Your task to perform on an android device: Open Android settings Image 0: 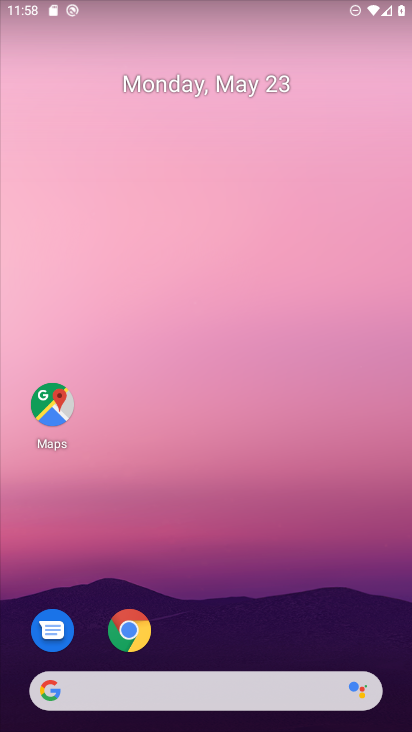
Step 0: drag from (245, 177) to (254, 134)
Your task to perform on an android device: Open Android settings Image 1: 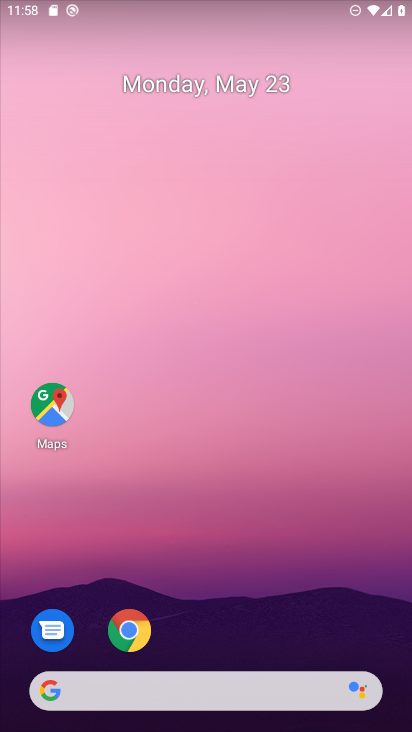
Step 1: drag from (206, 621) to (216, 179)
Your task to perform on an android device: Open Android settings Image 2: 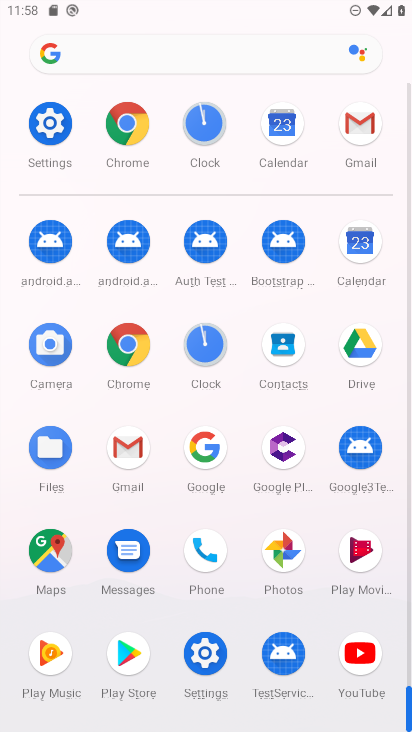
Step 2: click (48, 126)
Your task to perform on an android device: Open Android settings Image 3: 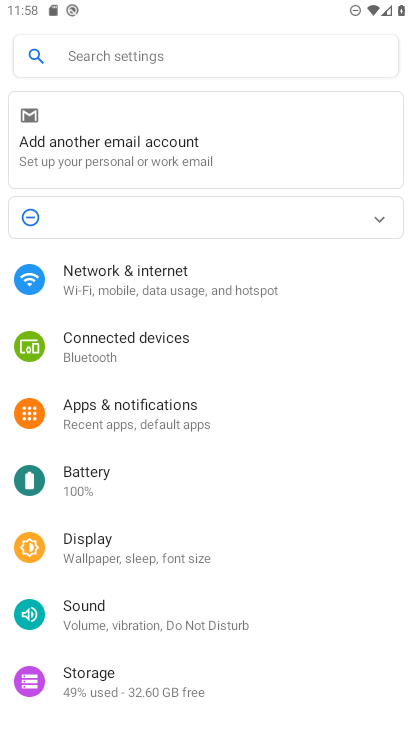
Step 3: drag from (218, 653) to (259, 263)
Your task to perform on an android device: Open Android settings Image 4: 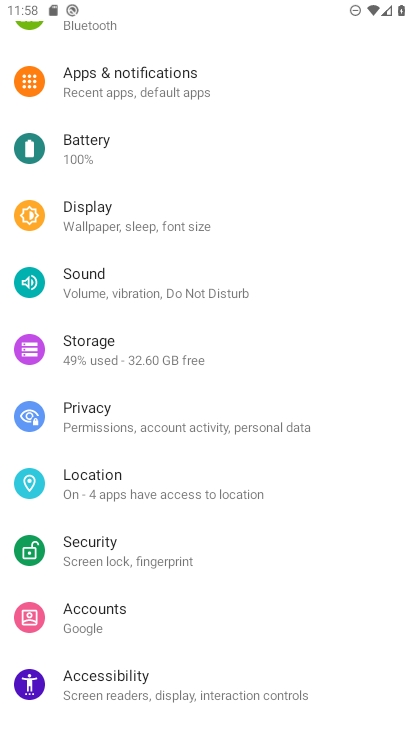
Step 4: drag from (201, 608) to (237, 301)
Your task to perform on an android device: Open Android settings Image 5: 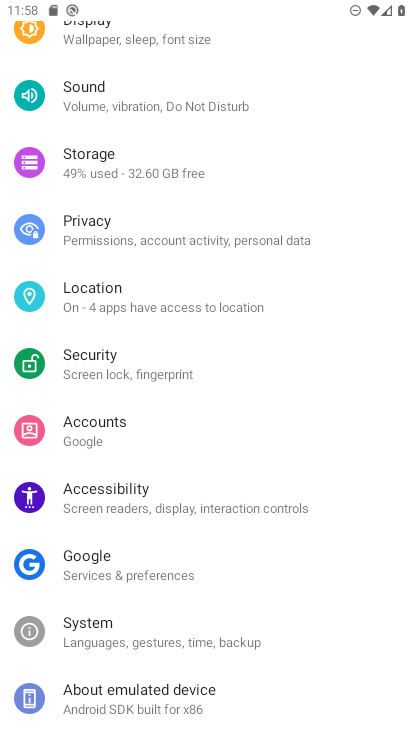
Step 5: click (165, 691)
Your task to perform on an android device: Open Android settings Image 6: 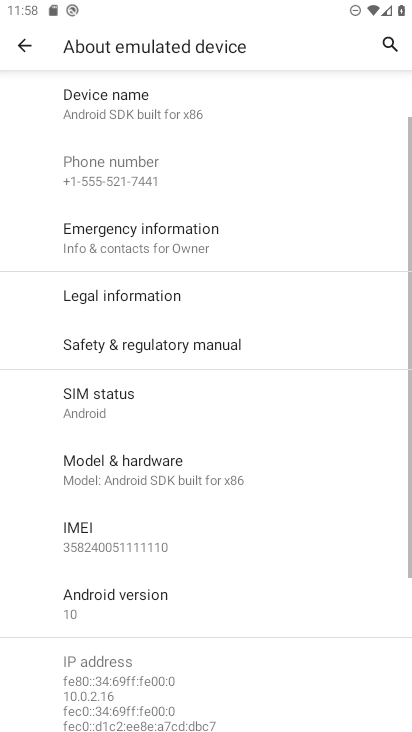
Step 6: task complete